Your task to perform on an android device: Open battery settings Image 0: 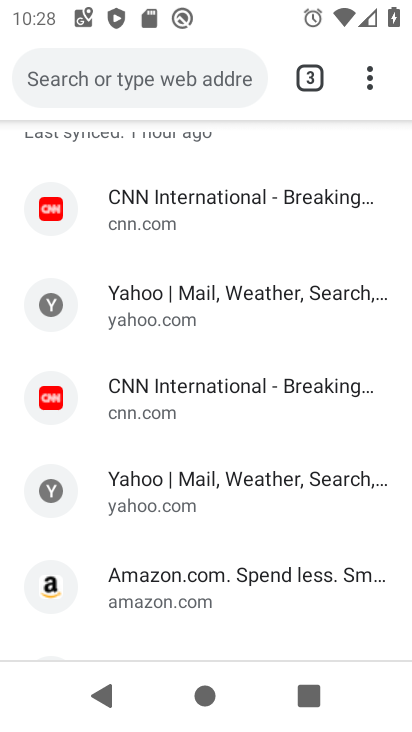
Step 0: press home button
Your task to perform on an android device: Open battery settings Image 1: 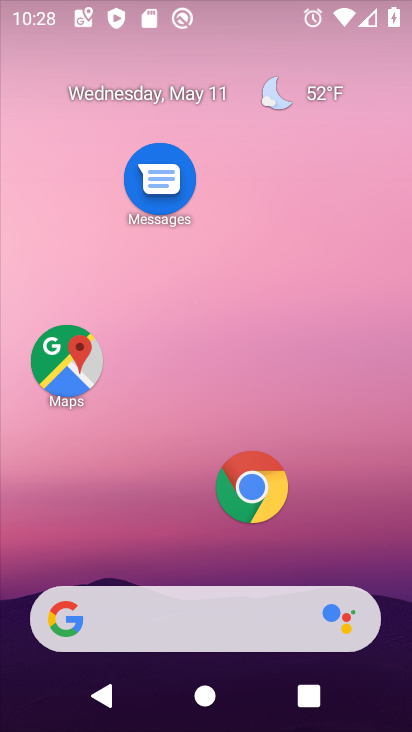
Step 1: drag from (170, 580) to (181, 202)
Your task to perform on an android device: Open battery settings Image 2: 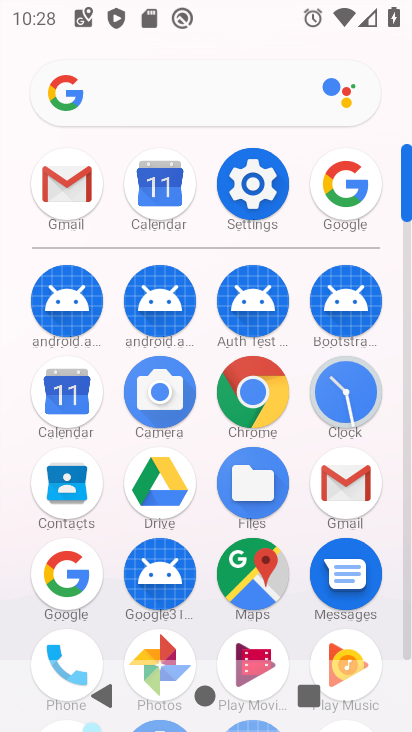
Step 2: click (216, 200)
Your task to perform on an android device: Open battery settings Image 3: 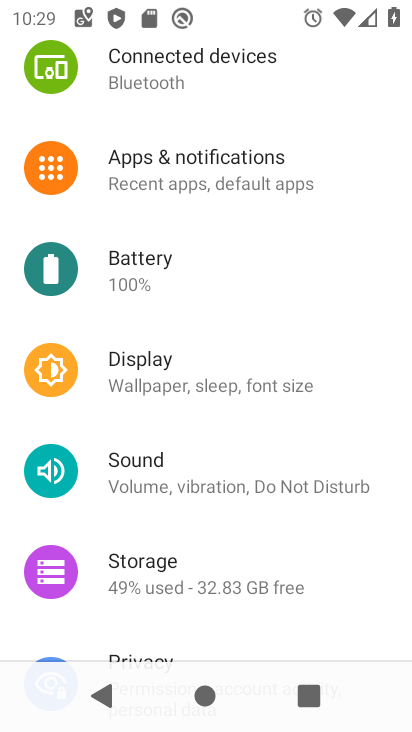
Step 3: click (200, 255)
Your task to perform on an android device: Open battery settings Image 4: 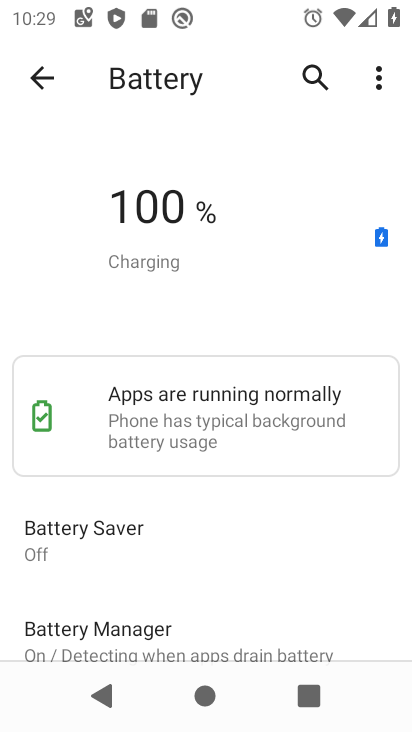
Step 4: task complete